Your task to perform on an android device: empty trash in the gmail app Image 0: 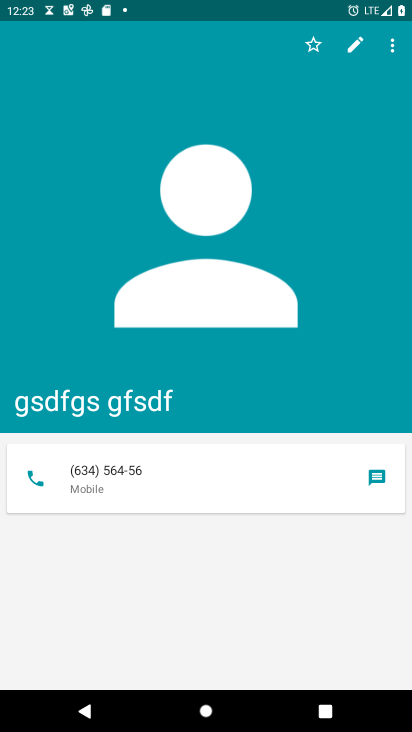
Step 0: press home button
Your task to perform on an android device: empty trash in the gmail app Image 1: 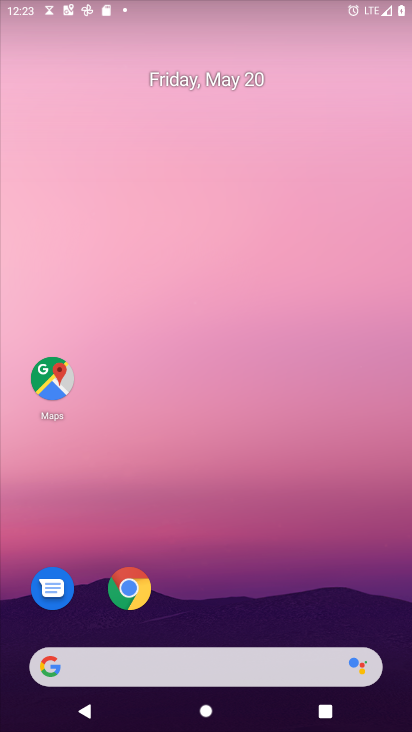
Step 1: drag from (291, 472) to (212, 33)
Your task to perform on an android device: empty trash in the gmail app Image 2: 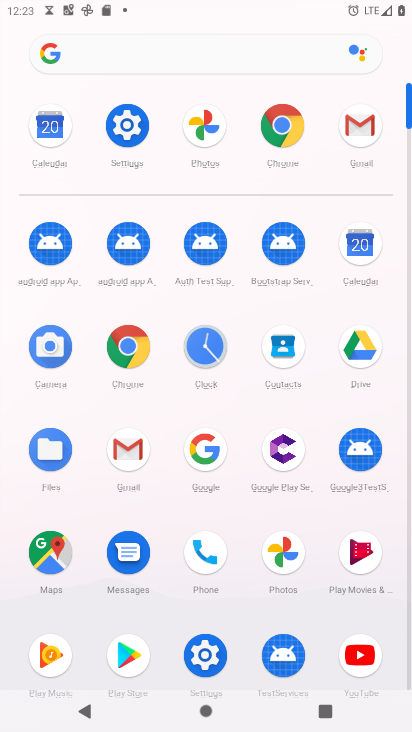
Step 2: click (126, 449)
Your task to perform on an android device: empty trash in the gmail app Image 3: 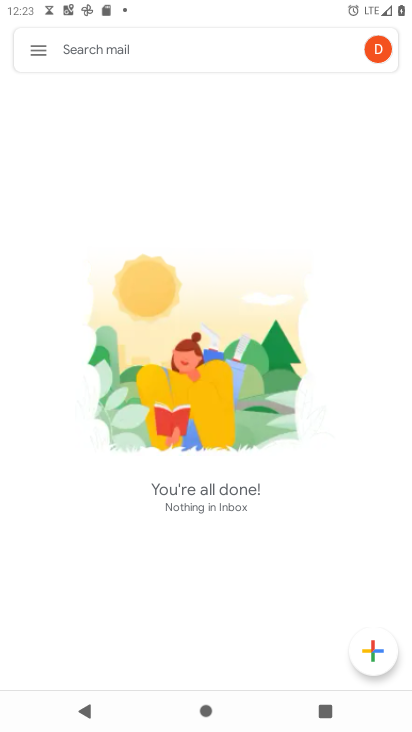
Step 3: click (42, 56)
Your task to perform on an android device: empty trash in the gmail app Image 4: 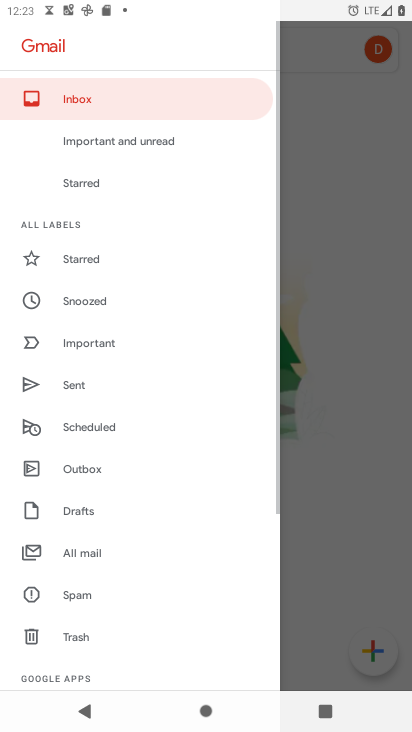
Step 4: click (109, 634)
Your task to perform on an android device: empty trash in the gmail app Image 5: 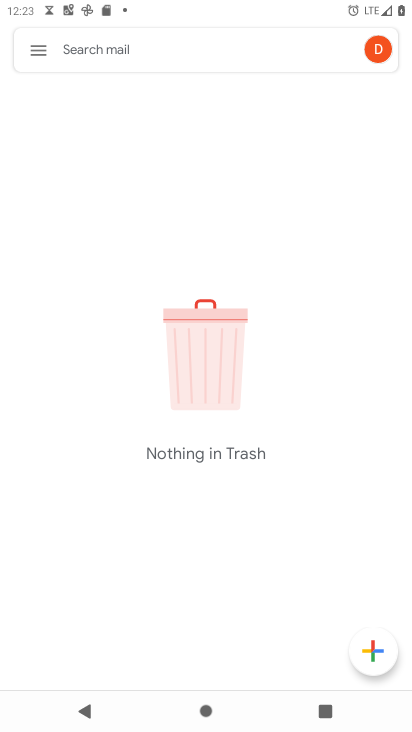
Step 5: task complete